Your task to perform on an android device: Go to internet settings Image 0: 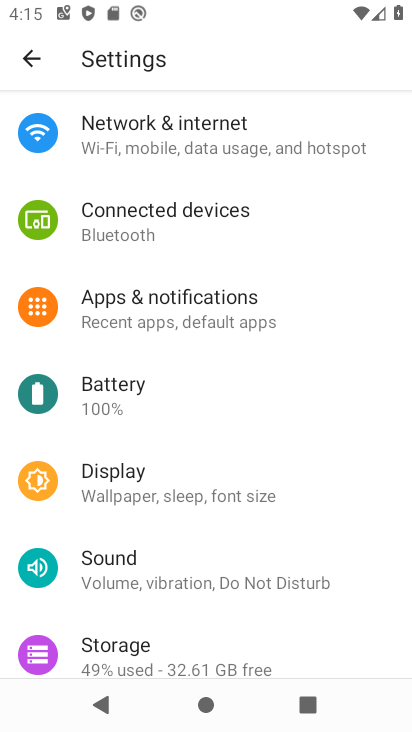
Step 0: click (196, 122)
Your task to perform on an android device: Go to internet settings Image 1: 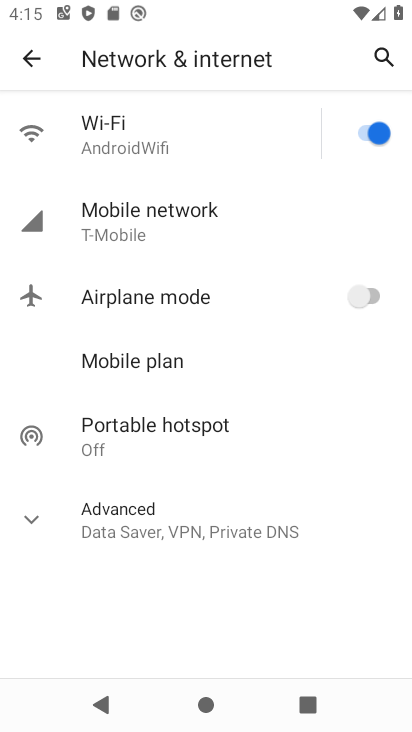
Step 1: task complete